Your task to perform on an android device: Open the calendar app, open the side menu, and click the "Day" option Image 0: 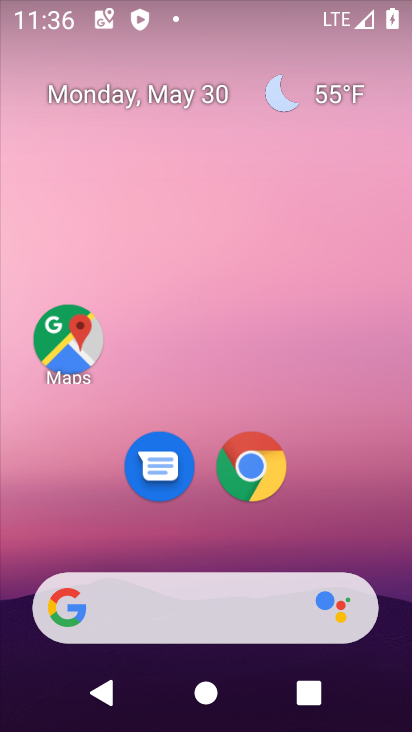
Step 0: drag from (343, 515) to (304, 56)
Your task to perform on an android device: Open the calendar app, open the side menu, and click the "Day" option Image 1: 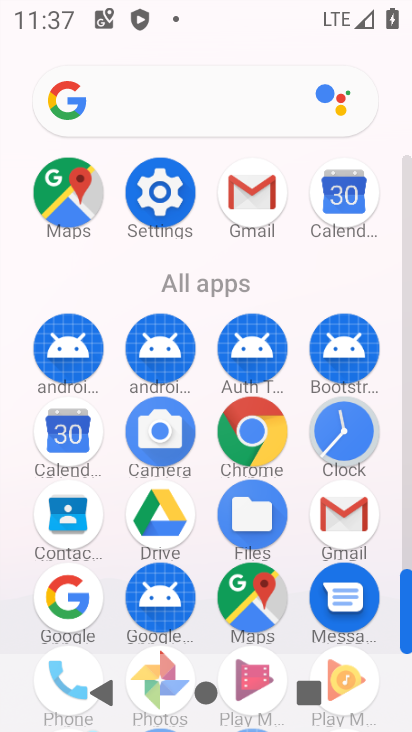
Step 1: drag from (208, 289) to (197, 129)
Your task to perform on an android device: Open the calendar app, open the side menu, and click the "Day" option Image 2: 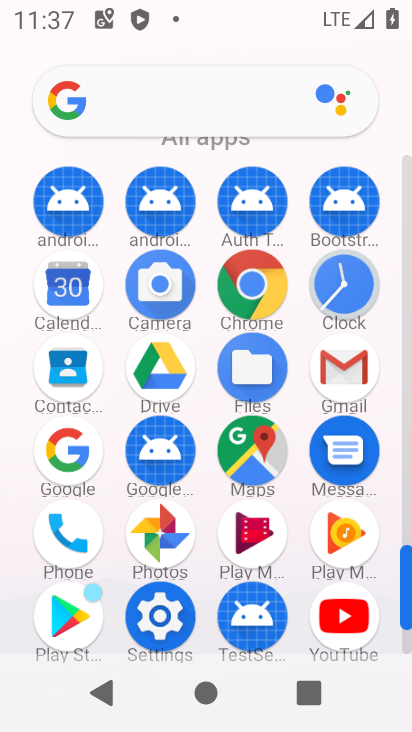
Step 2: click (75, 297)
Your task to perform on an android device: Open the calendar app, open the side menu, and click the "Day" option Image 3: 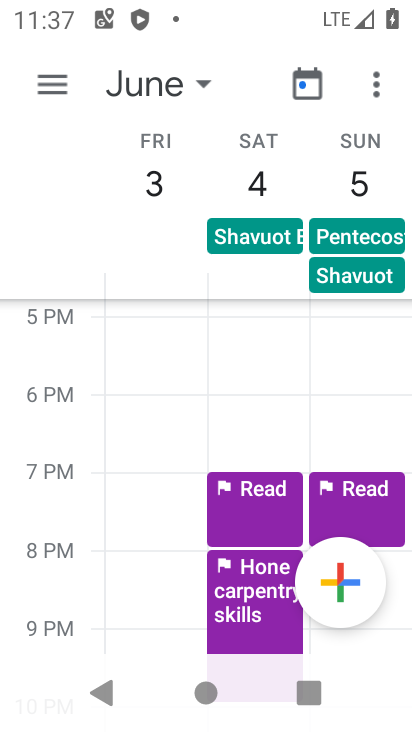
Step 3: click (57, 86)
Your task to perform on an android device: Open the calendar app, open the side menu, and click the "Day" option Image 4: 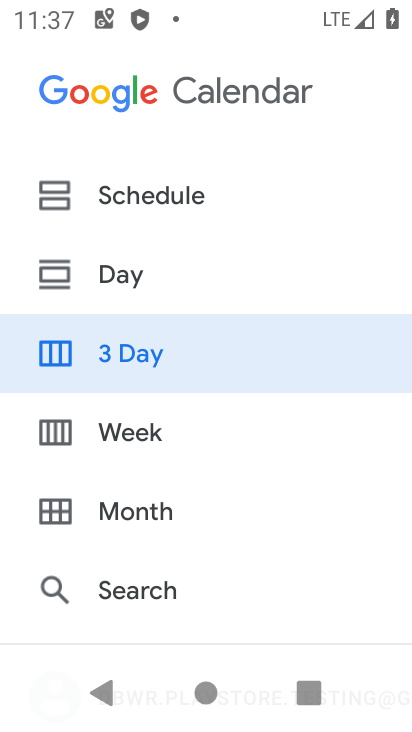
Step 4: click (107, 278)
Your task to perform on an android device: Open the calendar app, open the side menu, and click the "Day" option Image 5: 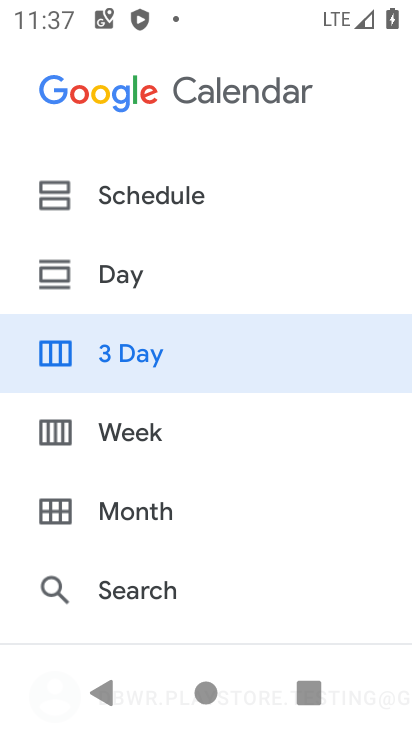
Step 5: click (106, 261)
Your task to perform on an android device: Open the calendar app, open the side menu, and click the "Day" option Image 6: 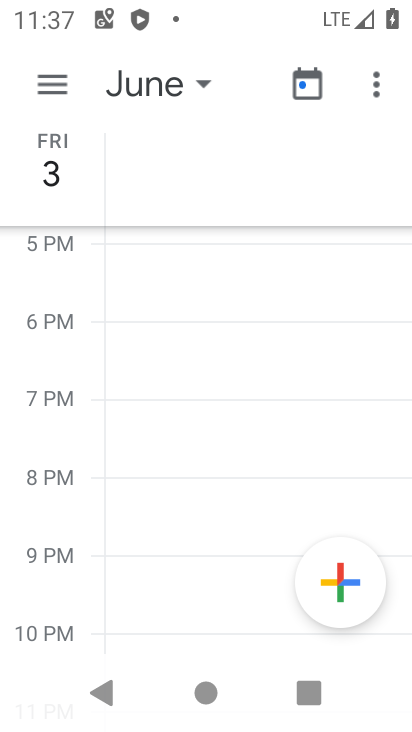
Step 6: task complete